Your task to perform on an android device: Open Google Image 0: 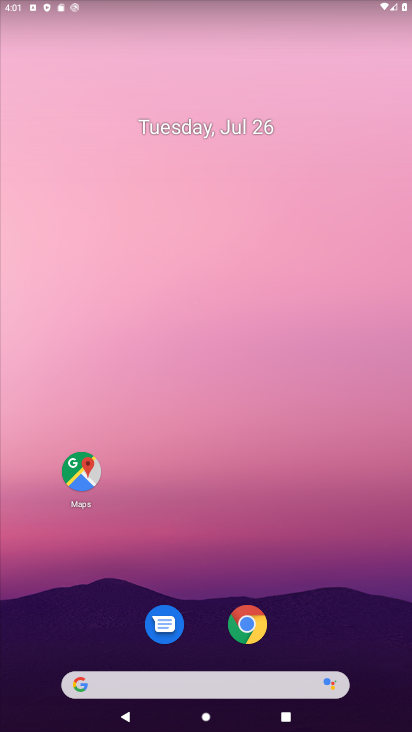
Step 0: press home button
Your task to perform on an android device: Open Google Image 1: 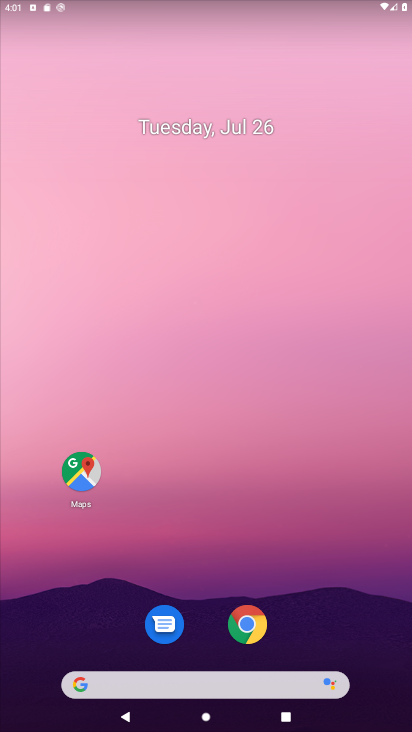
Step 1: drag from (221, 587) to (246, 55)
Your task to perform on an android device: Open Google Image 2: 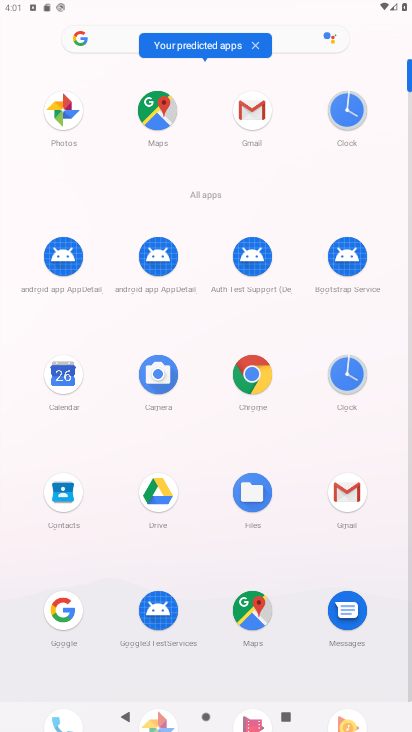
Step 2: click (249, 378)
Your task to perform on an android device: Open Google Image 3: 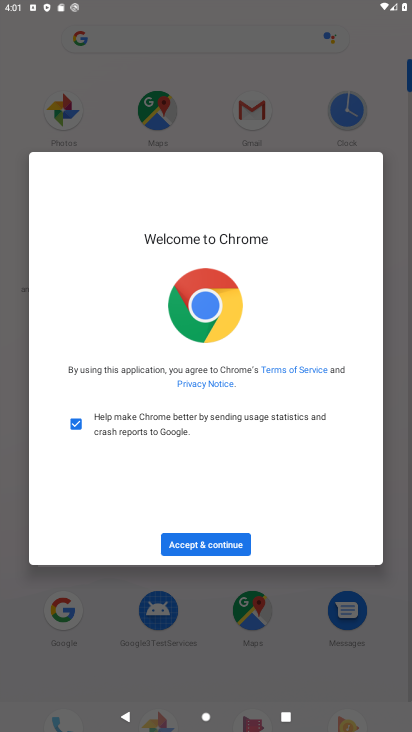
Step 3: click (217, 544)
Your task to perform on an android device: Open Google Image 4: 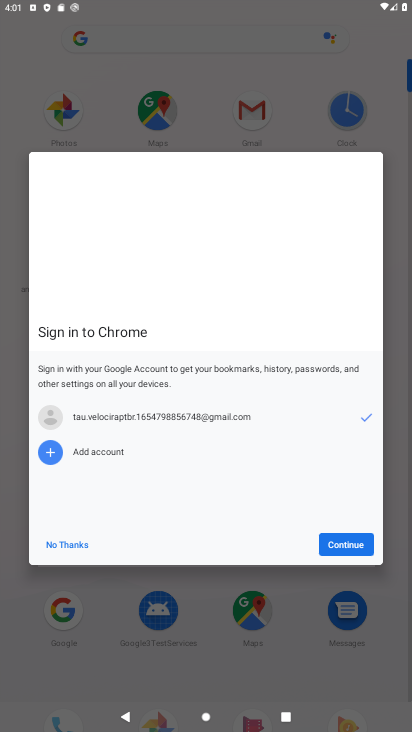
Step 4: click (85, 546)
Your task to perform on an android device: Open Google Image 5: 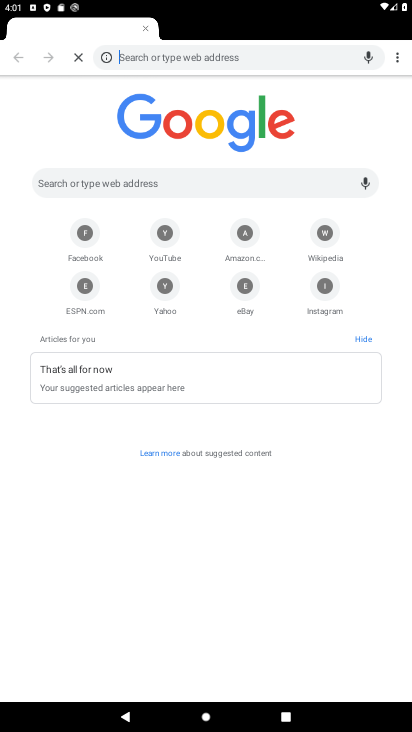
Step 5: task complete